Your task to perform on an android device: Open Google Chrome Image 0: 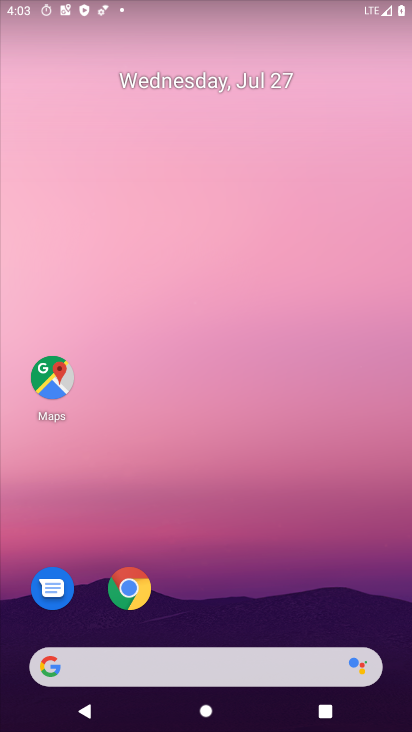
Step 0: press home button
Your task to perform on an android device: Open Google Chrome Image 1: 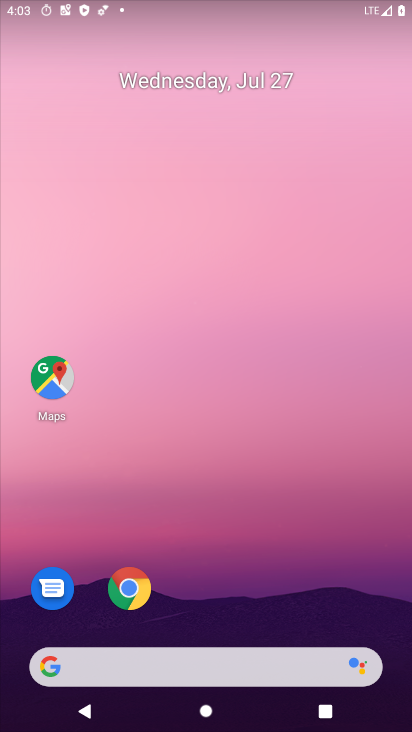
Step 1: click (126, 599)
Your task to perform on an android device: Open Google Chrome Image 2: 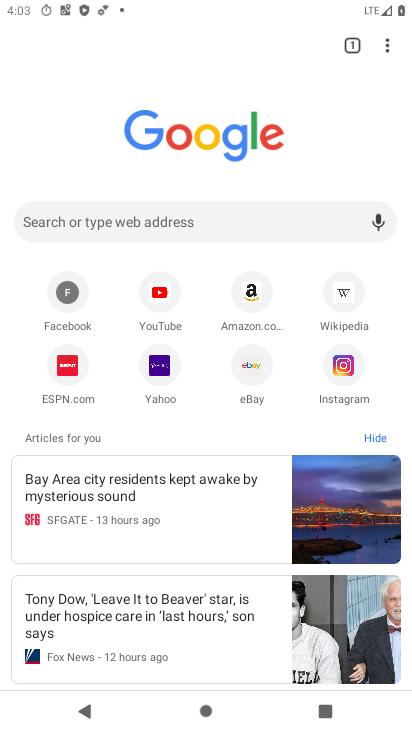
Step 2: task complete